Your task to perform on an android device: Search for "bose soundlink mini" on ebay.com, select the first entry, and add it to the cart. Image 0: 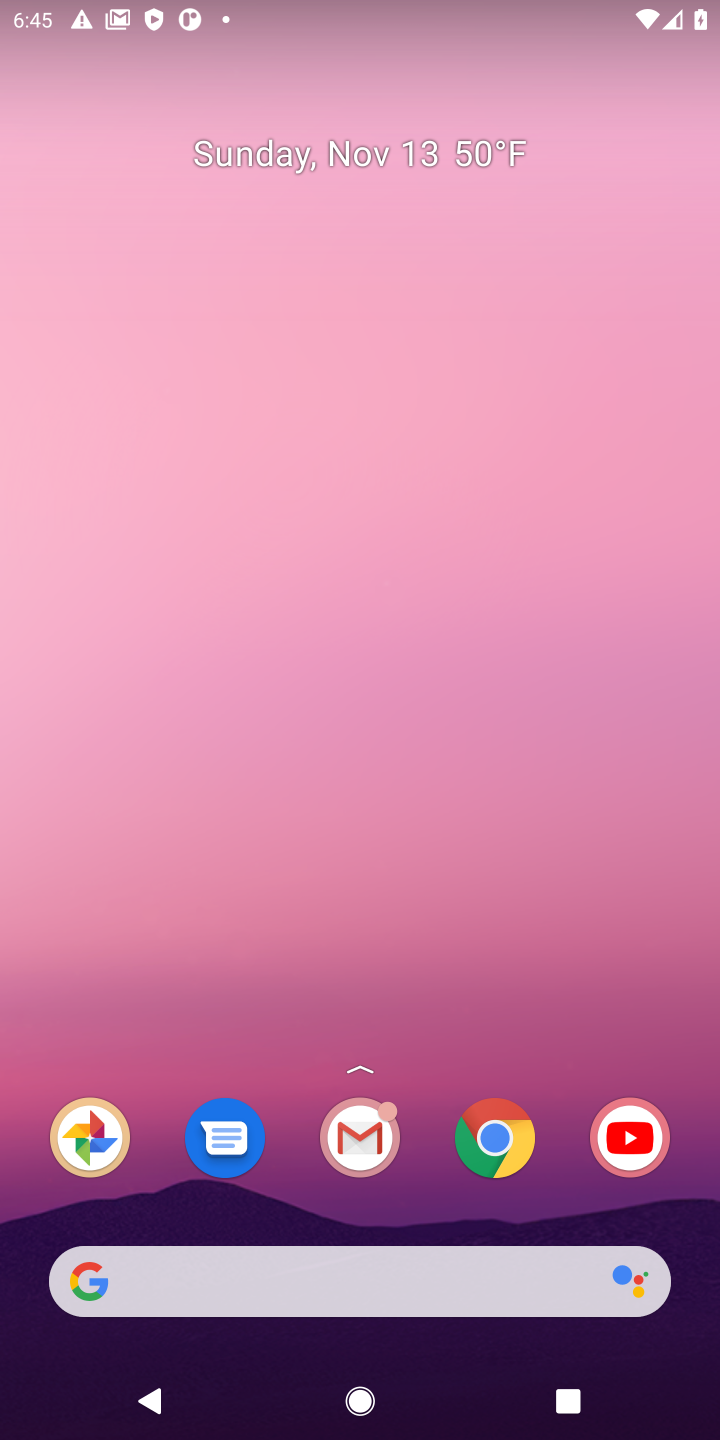
Step 0: drag from (210, 718) to (106, 145)
Your task to perform on an android device: Search for "bose soundlink mini" on ebay.com, select the first entry, and add it to the cart. Image 1: 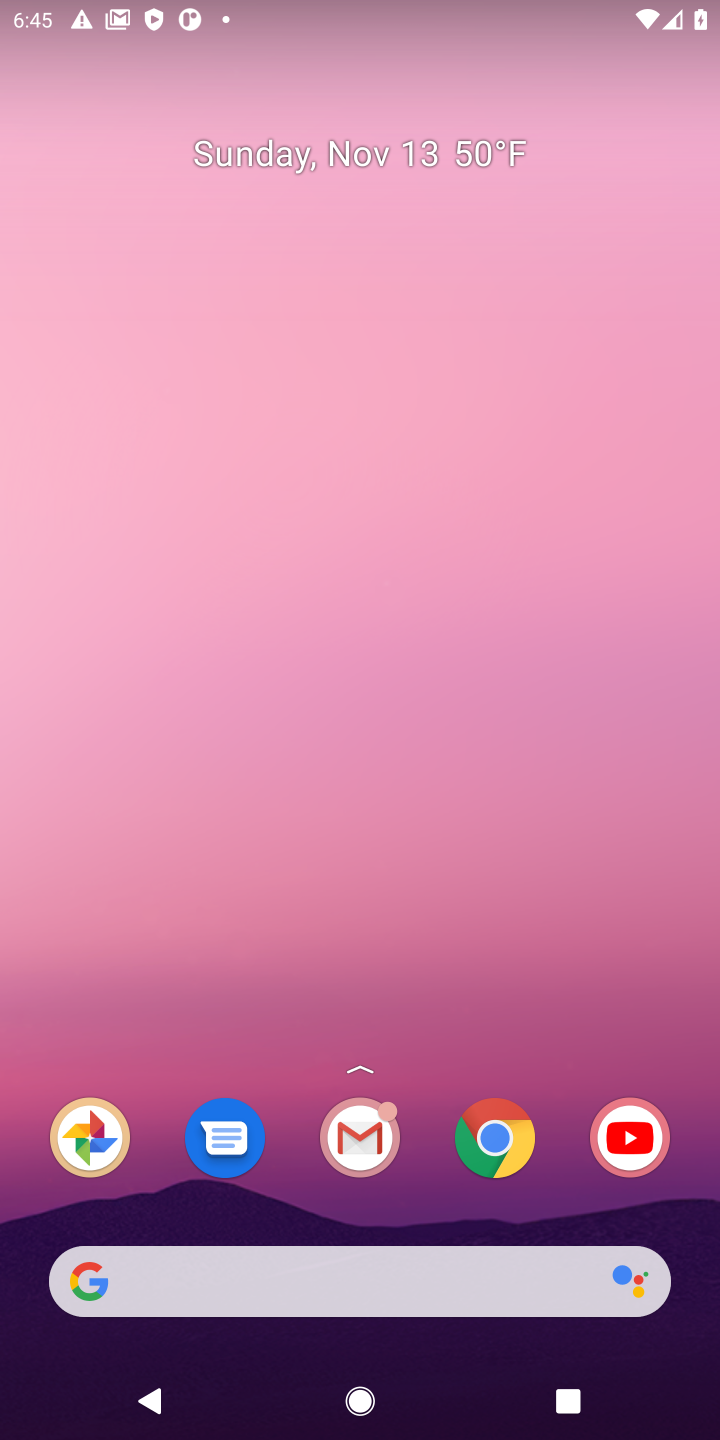
Step 1: drag from (321, 1081) to (147, 38)
Your task to perform on an android device: Search for "bose soundlink mini" on ebay.com, select the first entry, and add it to the cart. Image 2: 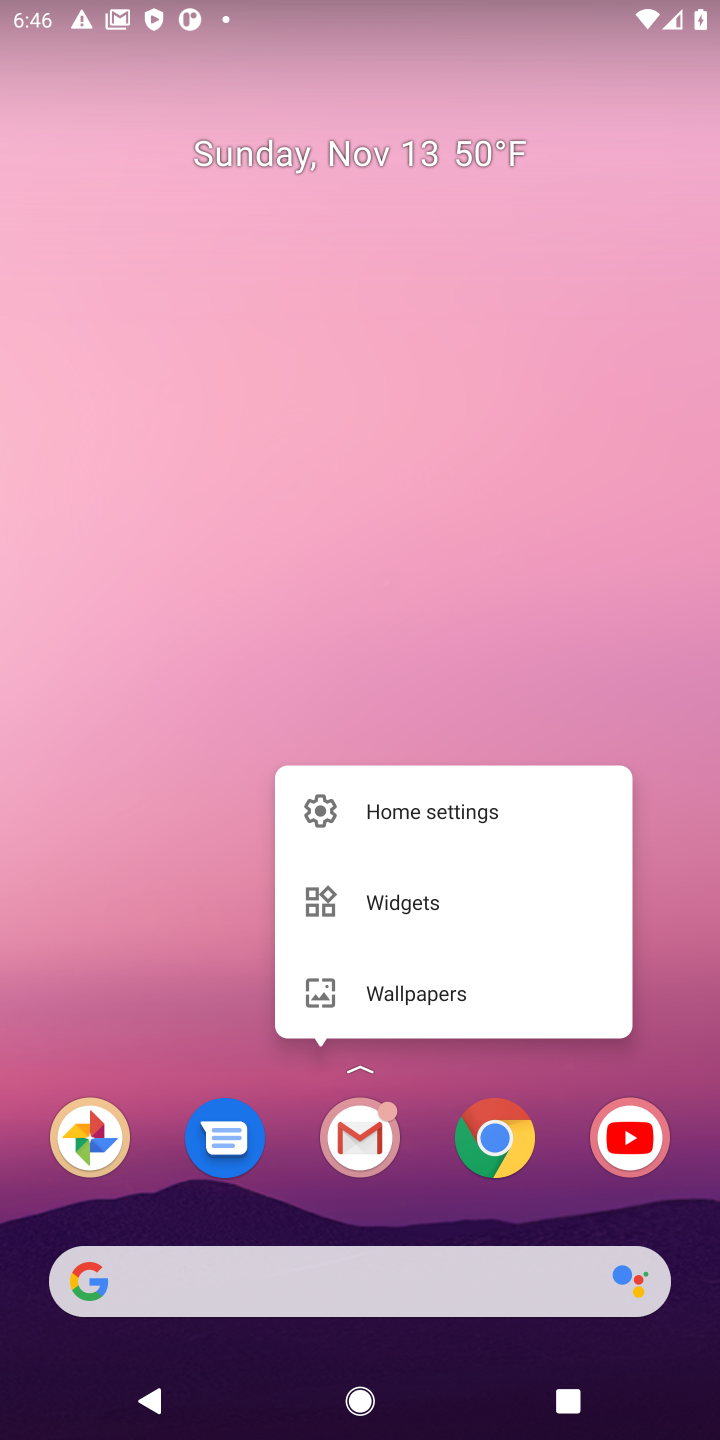
Step 2: click (277, 396)
Your task to perform on an android device: Search for "bose soundlink mini" on ebay.com, select the first entry, and add it to the cart. Image 3: 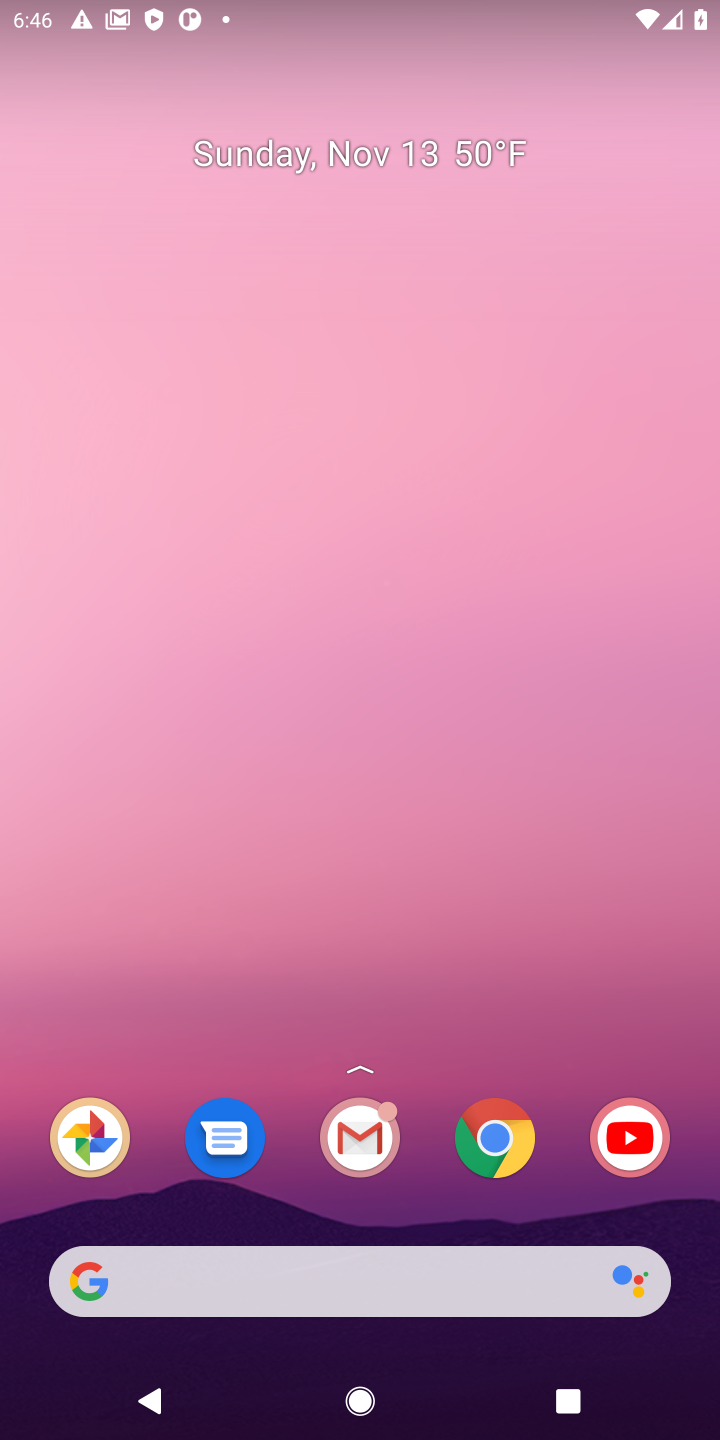
Step 3: drag from (333, 875) to (280, 253)
Your task to perform on an android device: Search for "bose soundlink mini" on ebay.com, select the first entry, and add it to the cart. Image 4: 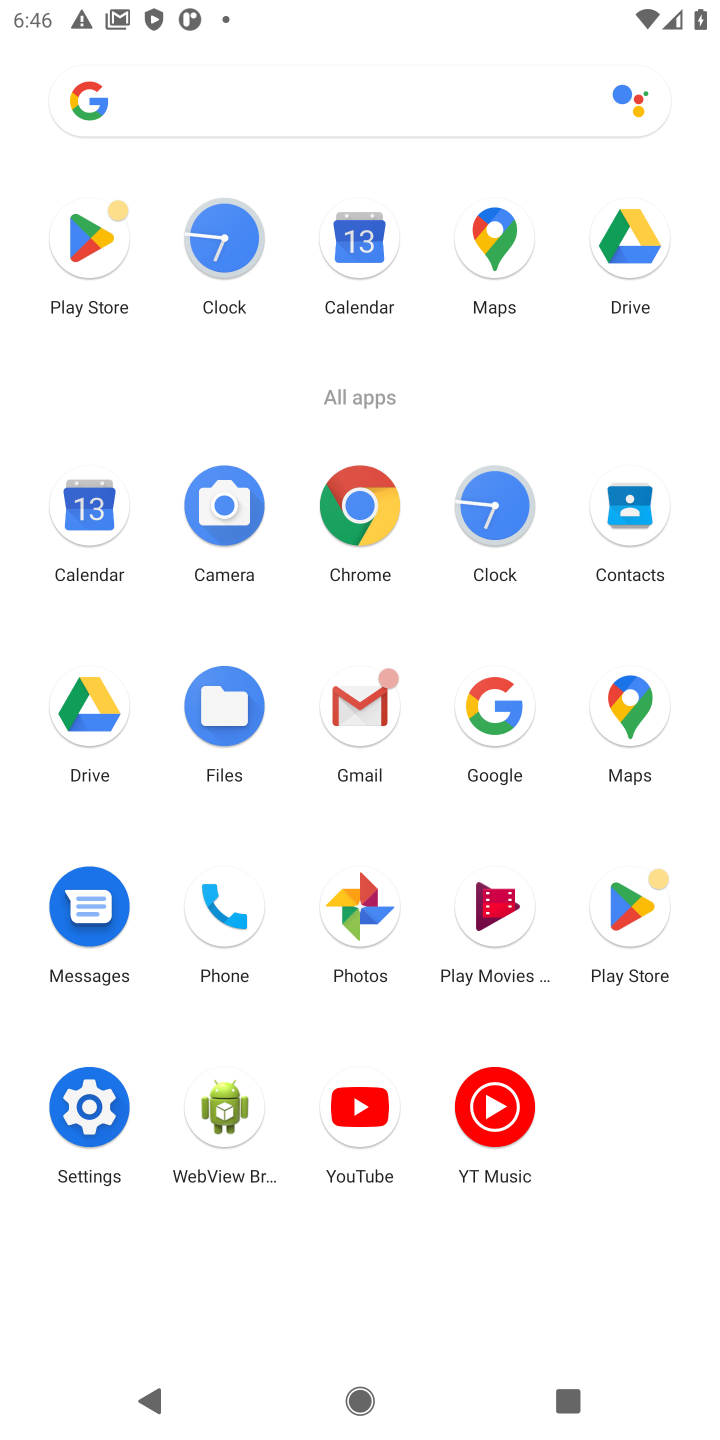
Step 4: click (354, 501)
Your task to perform on an android device: Search for "bose soundlink mini" on ebay.com, select the first entry, and add it to the cart. Image 5: 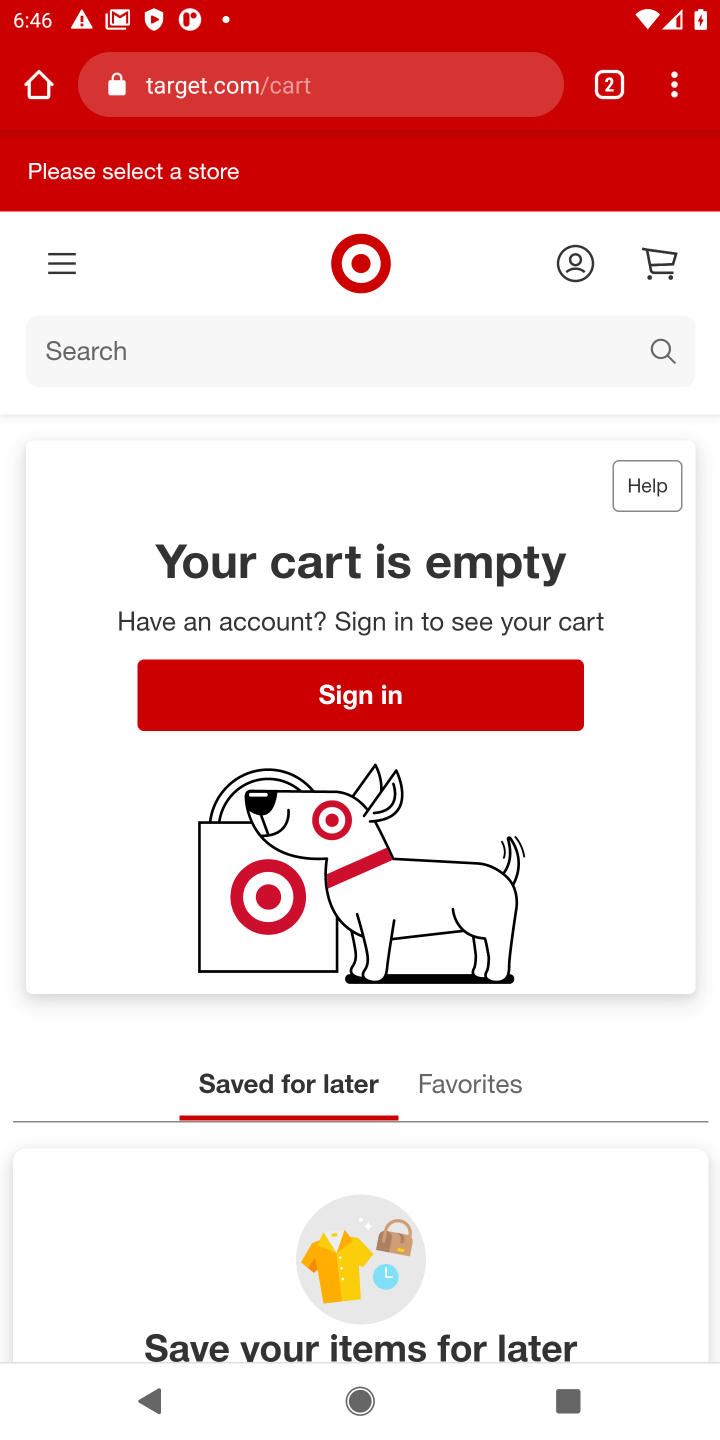
Step 5: click (327, 86)
Your task to perform on an android device: Search for "bose soundlink mini" on ebay.com, select the first entry, and add it to the cart. Image 6: 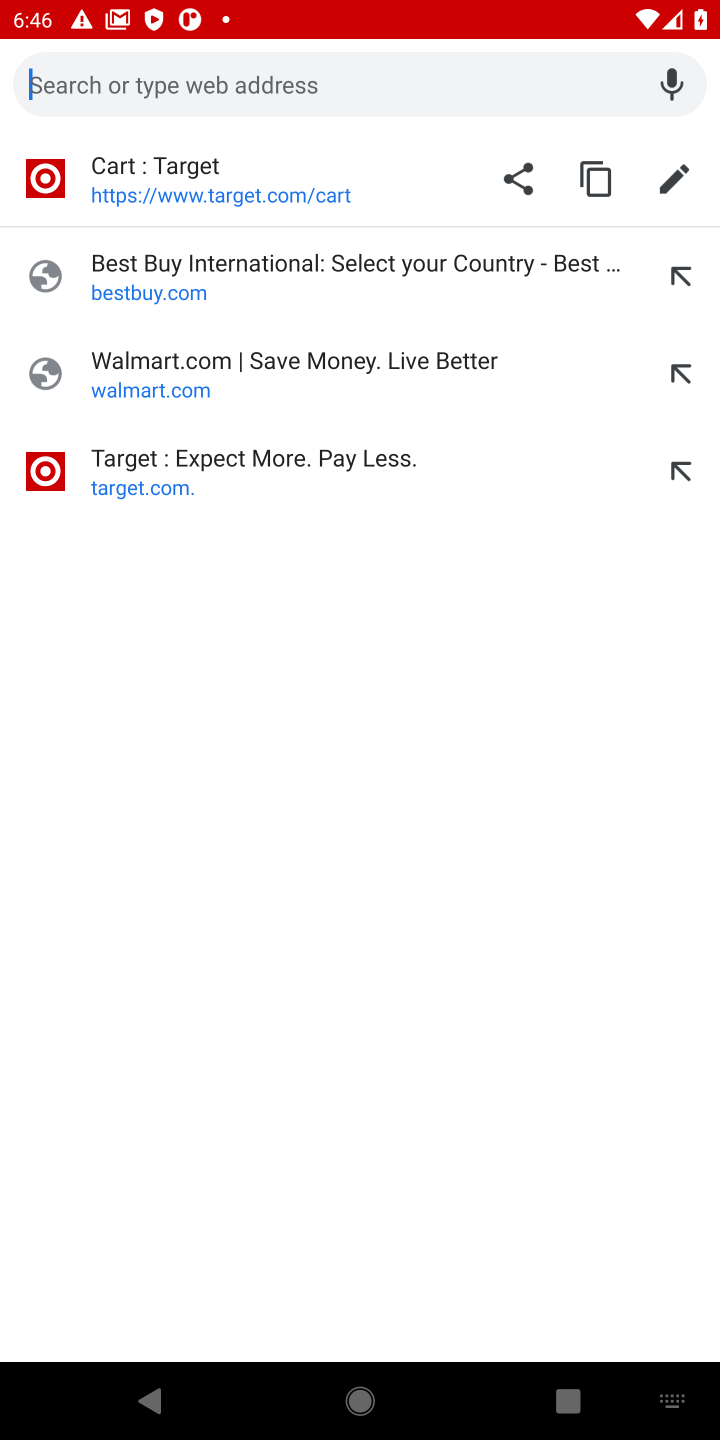
Step 6: type "ebay.com"
Your task to perform on an android device: Search for "bose soundlink mini" on ebay.com, select the first entry, and add it to the cart. Image 7: 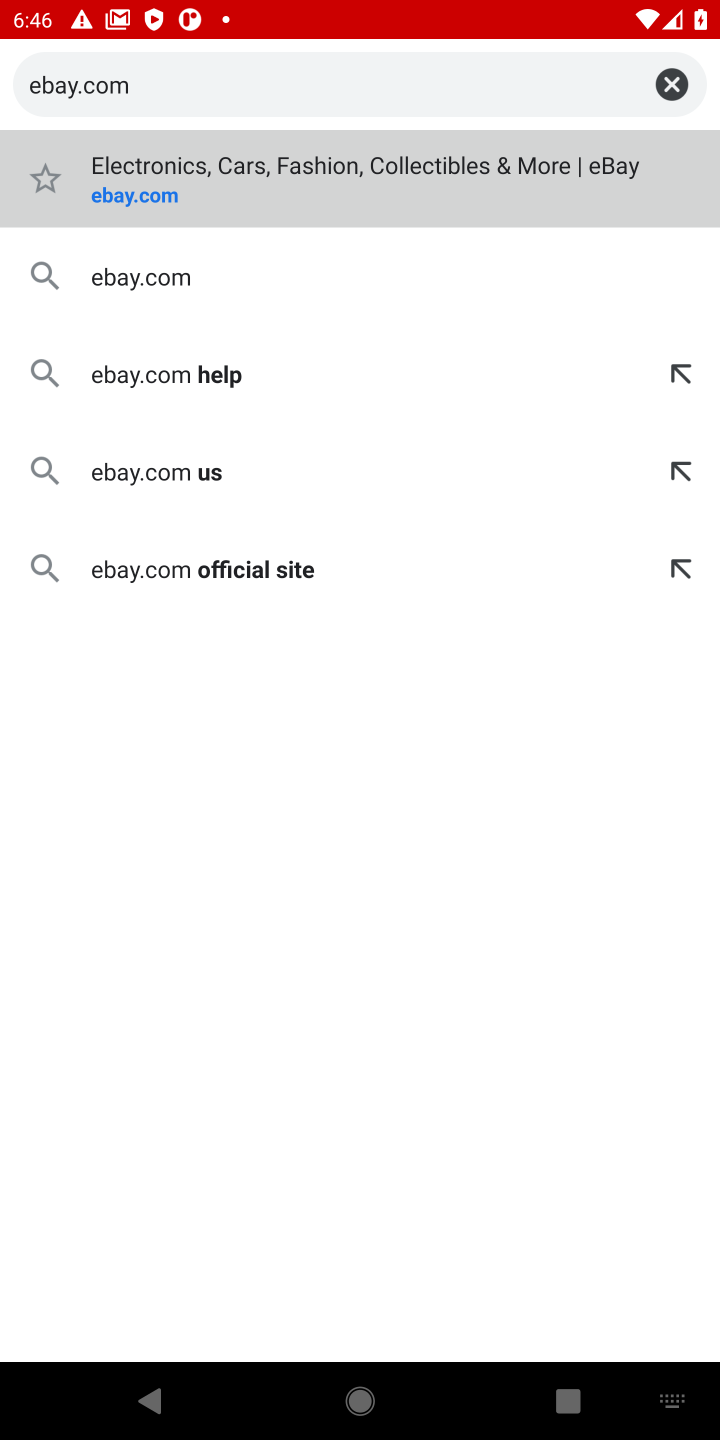
Step 7: press enter
Your task to perform on an android device: Search for "bose soundlink mini" on ebay.com, select the first entry, and add it to the cart. Image 8: 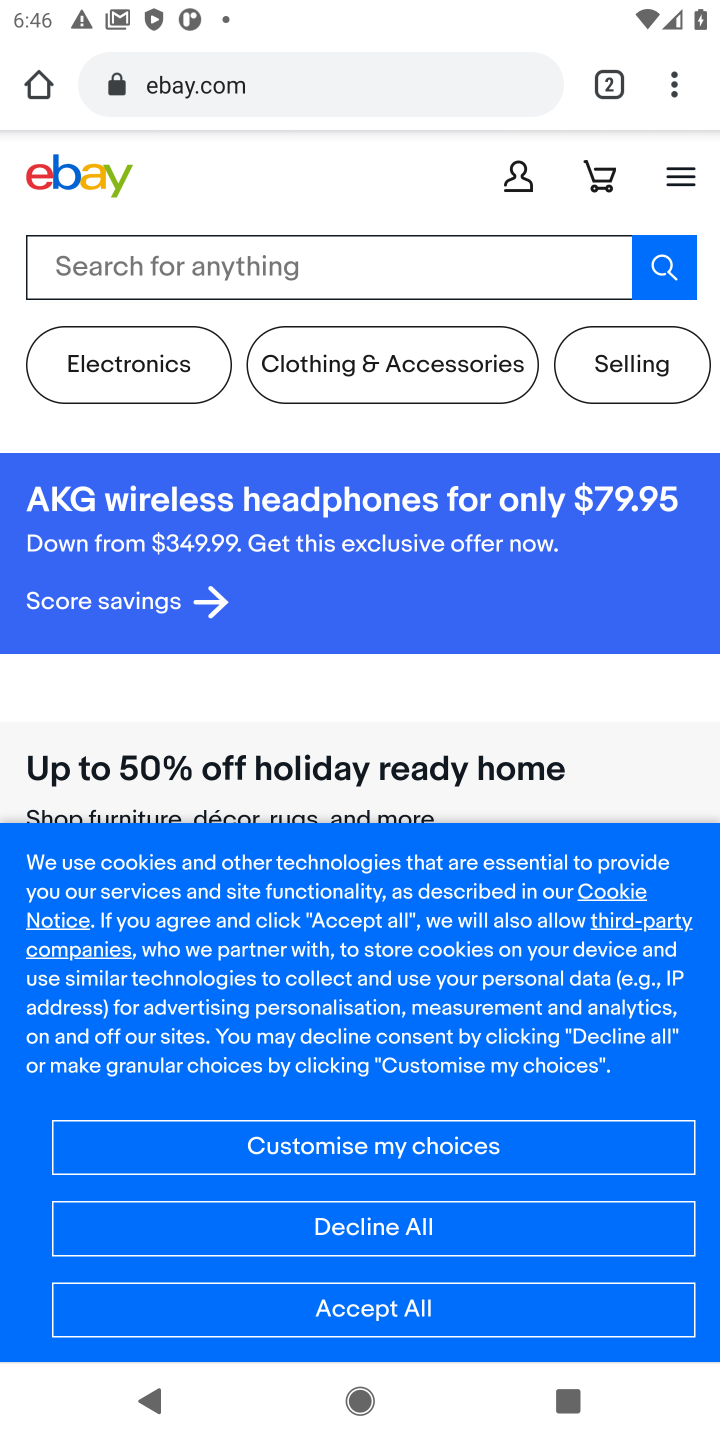
Step 8: click (121, 269)
Your task to perform on an android device: Search for "bose soundlink mini" on ebay.com, select the first entry, and add it to the cart. Image 9: 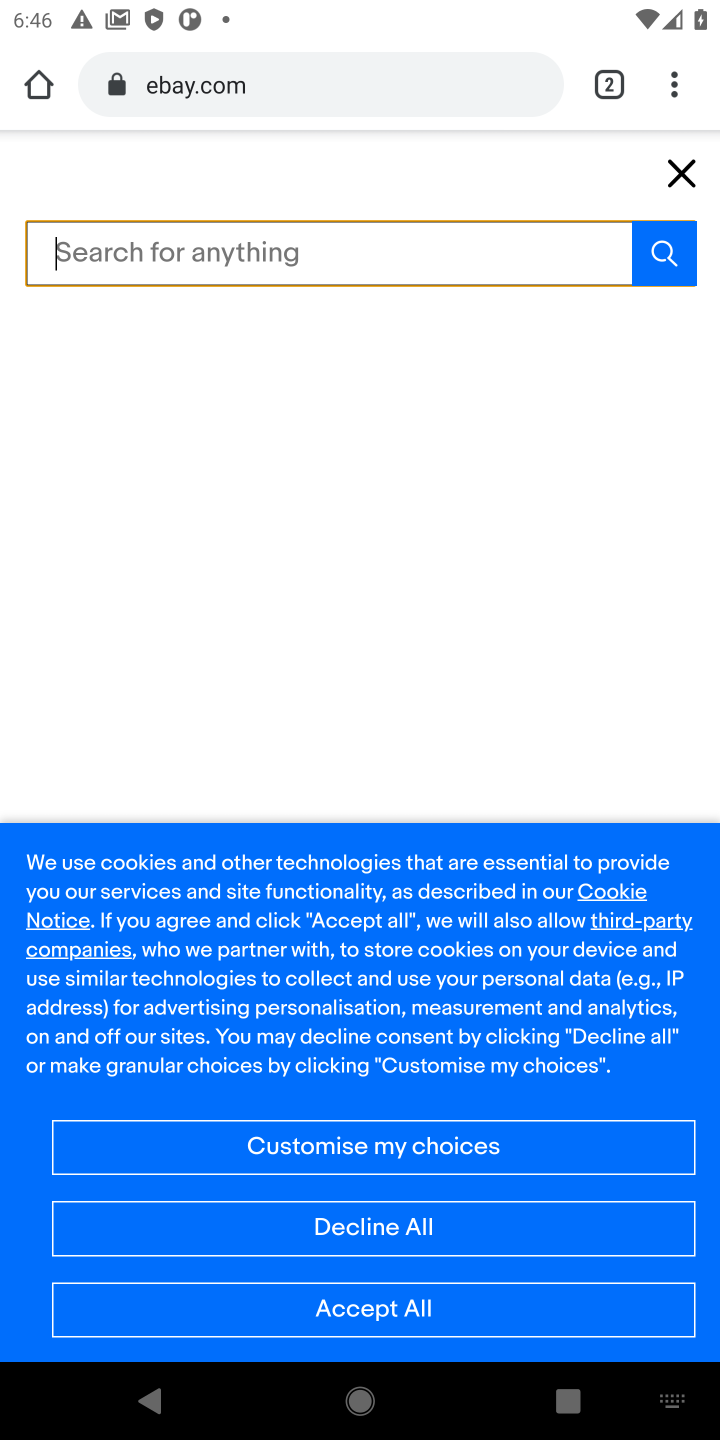
Step 9: type "bose soundlink mini"
Your task to perform on an android device: Search for "bose soundlink mini" on ebay.com, select the first entry, and add it to the cart. Image 10: 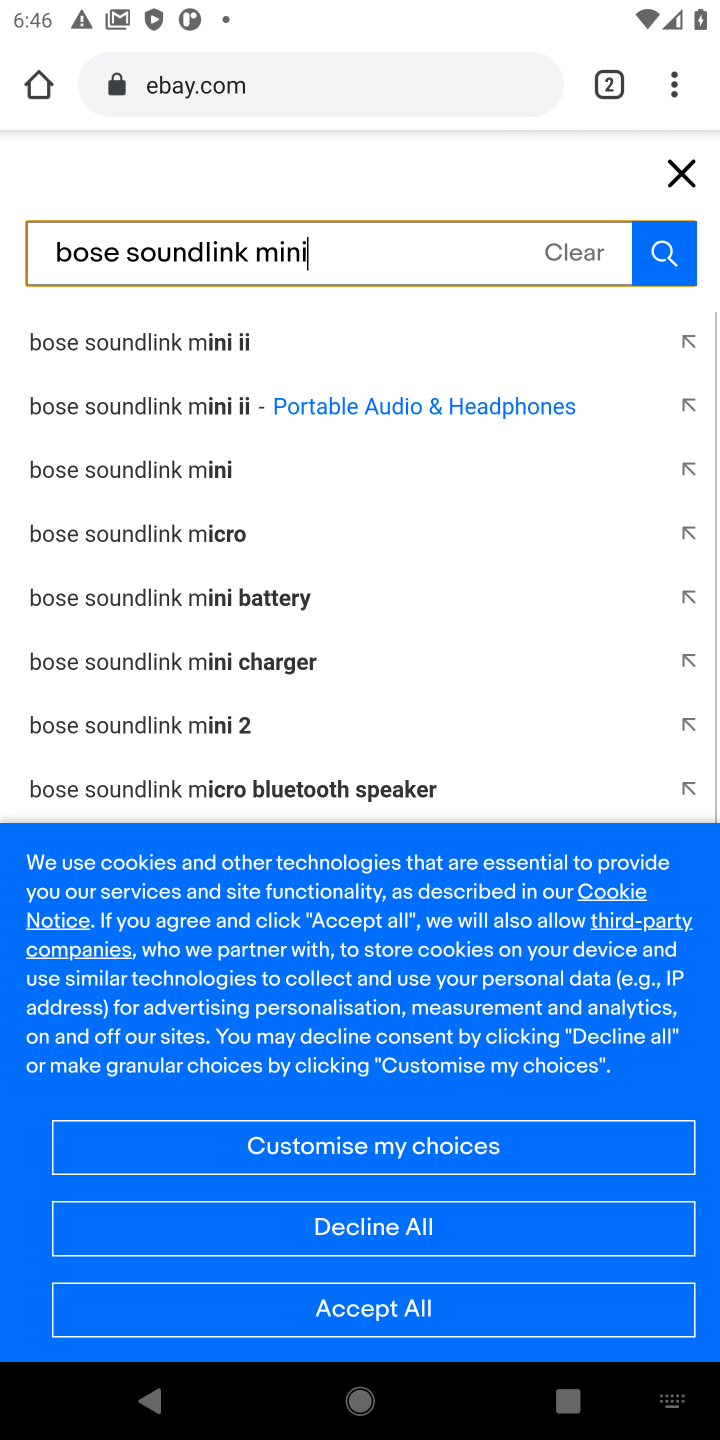
Step 10: press enter
Your task to perform on an android device: Search for "bose soundlink mini" on ebay.com, select the first entry, and add it to the cart. Image 11: 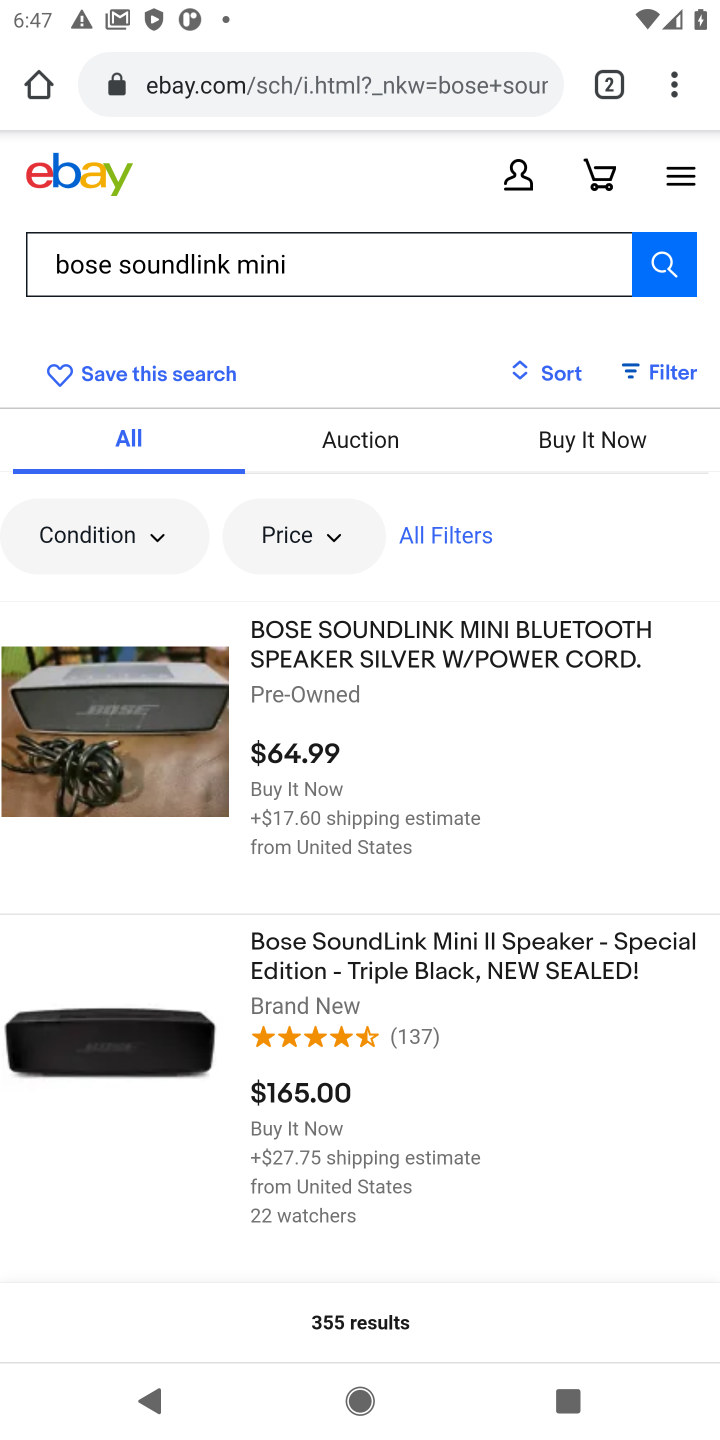
Step 11: click (447, 610)
Your task to perform on an android device: Search for "bose soundlink mini" on ebay.com, select the first entry, and add it to the cart. Image 12: 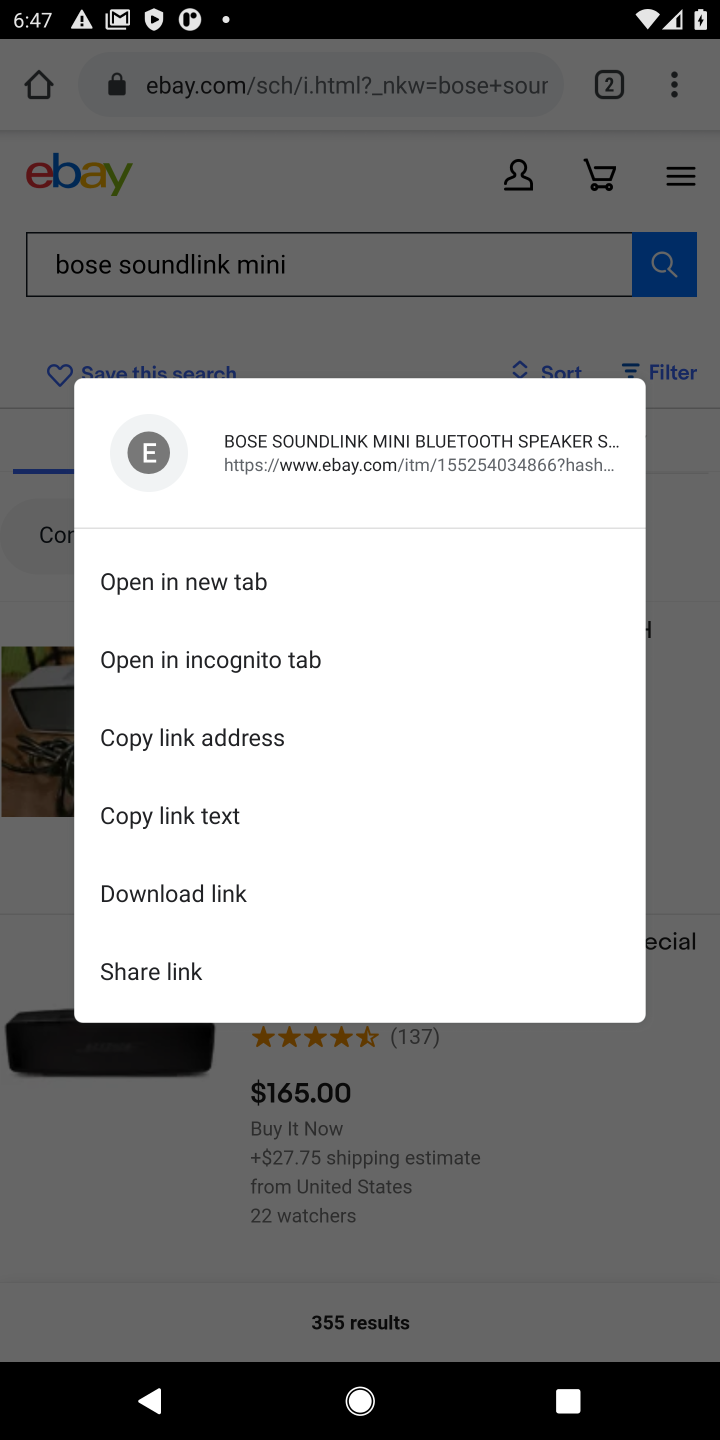
Step 12: click (229, 588)
Your task to perform on an android device: Search for "bose soundlink mini" on ebay.com, select the first entry, and add it to the cart. Image 13: 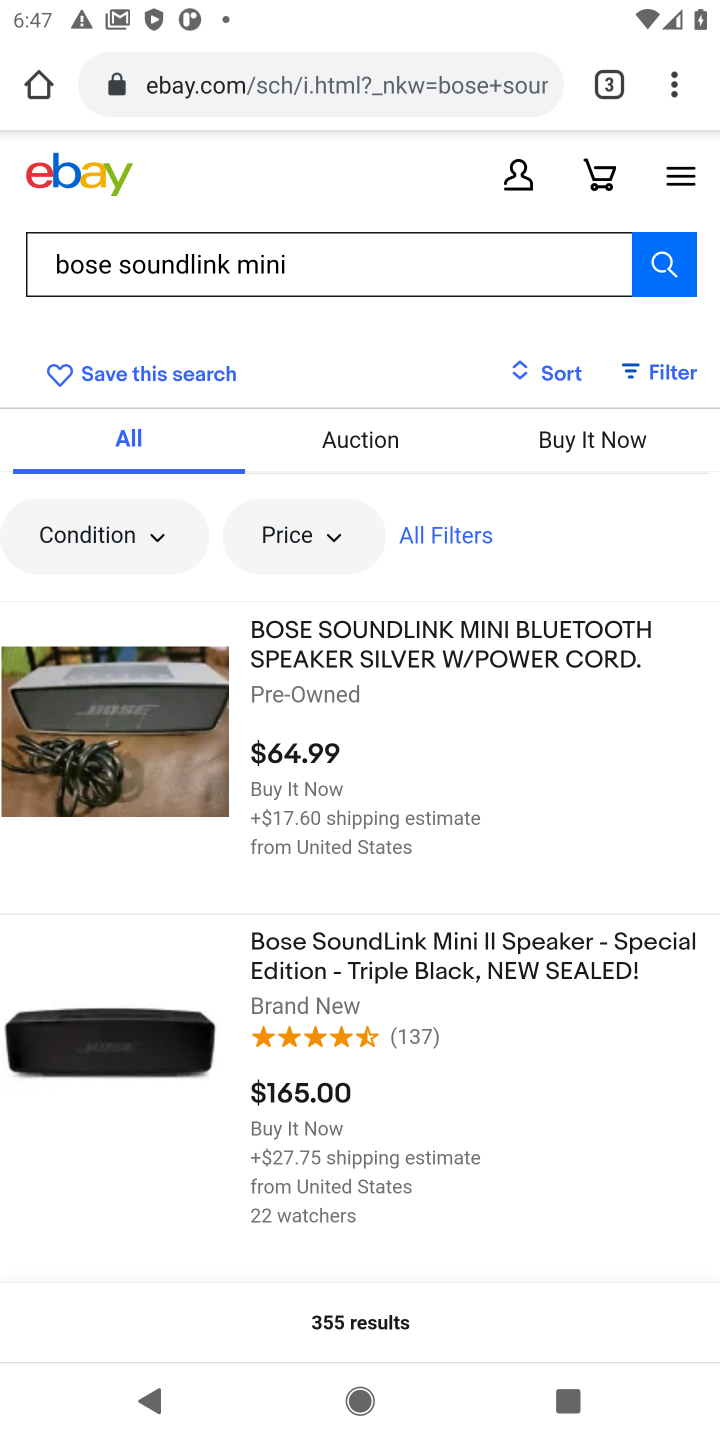
Step 13: click (321, 637)
Your task to perform on an android device: Search for "bose soundlink mini" on ebay.com, select the first entry, and add it to the cart. Image 14: 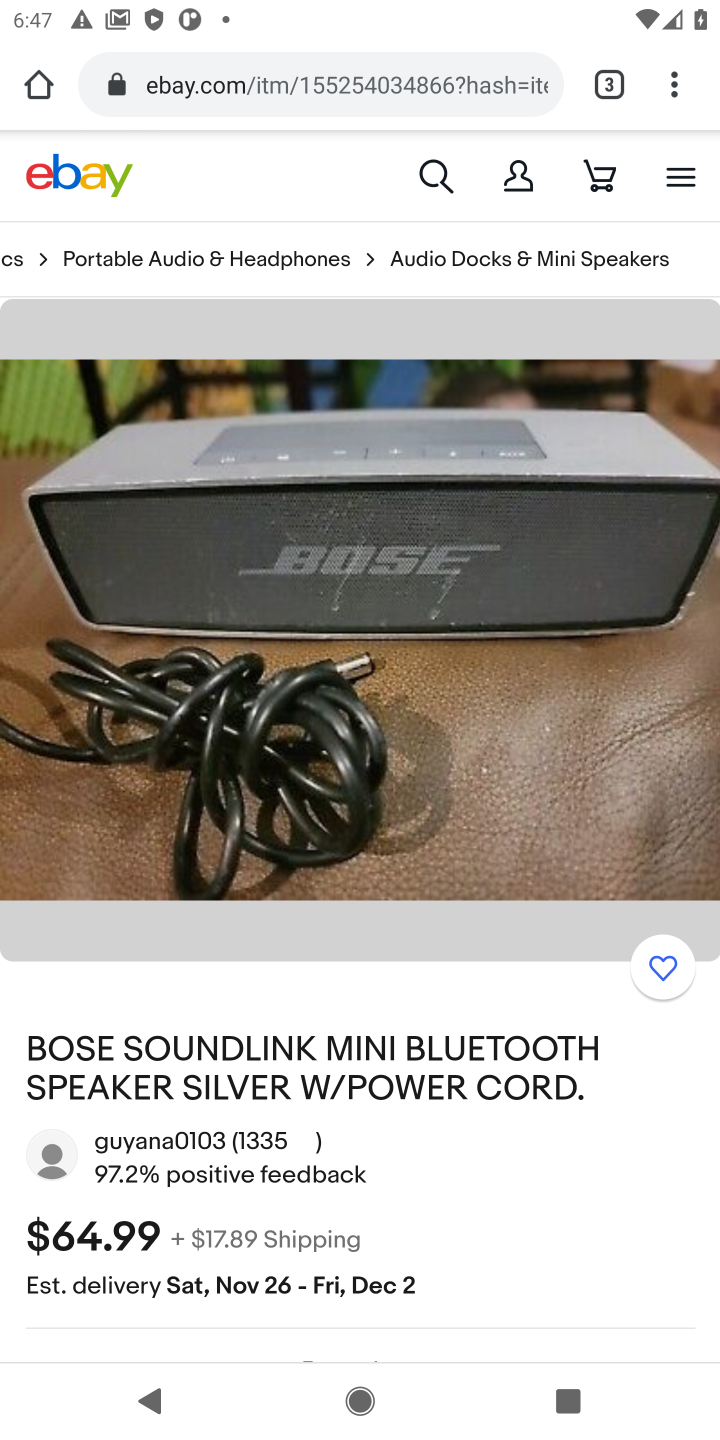
Step 14: drag from (299, 1074) to (199, 782)
Your task to perform on an android device: Search for "bose soundlink mini" on ebay.com, select the first entry, and add it to the cart. Image 15: 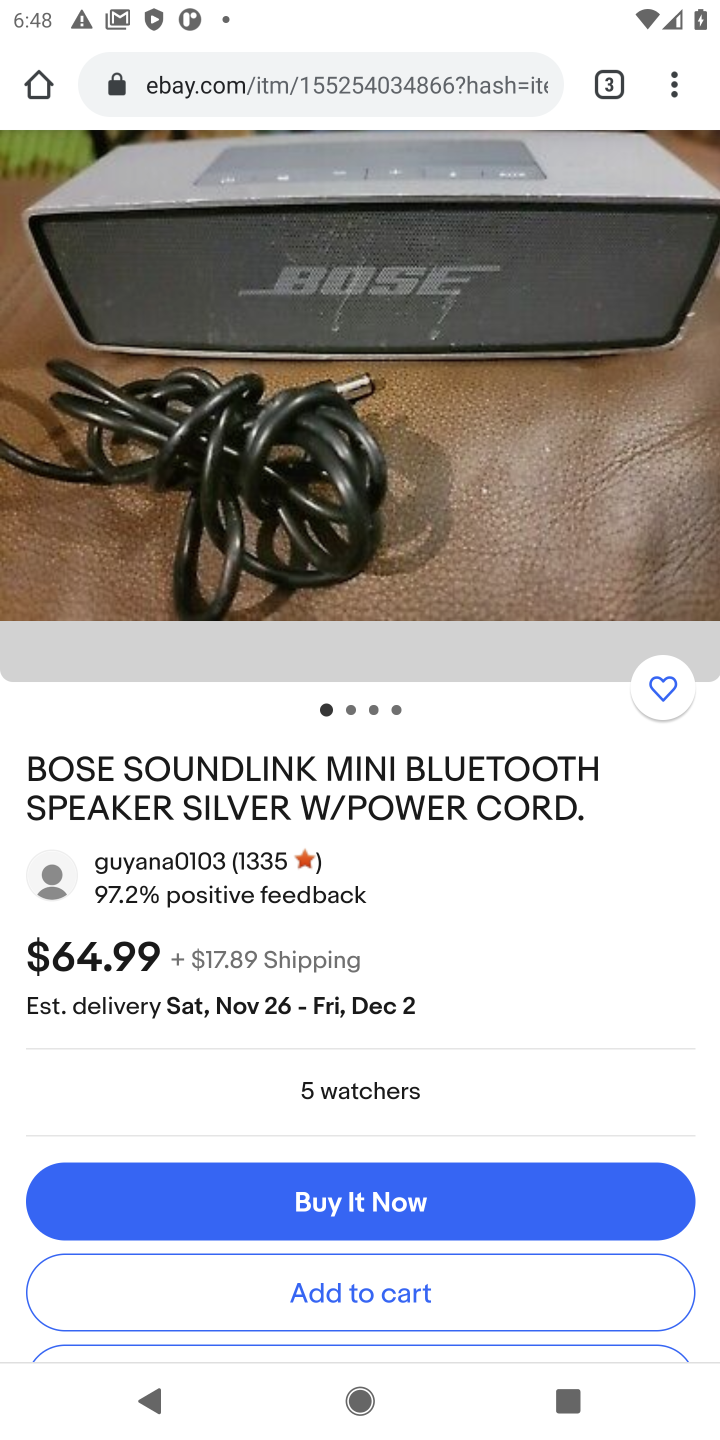
Step 15: drag from (454, 959) to (479, 682)
Your task to perform on an android device: Search for "bose soundlink mini" on ebay.com, select the first entry, and add it to the cart. Image 16: 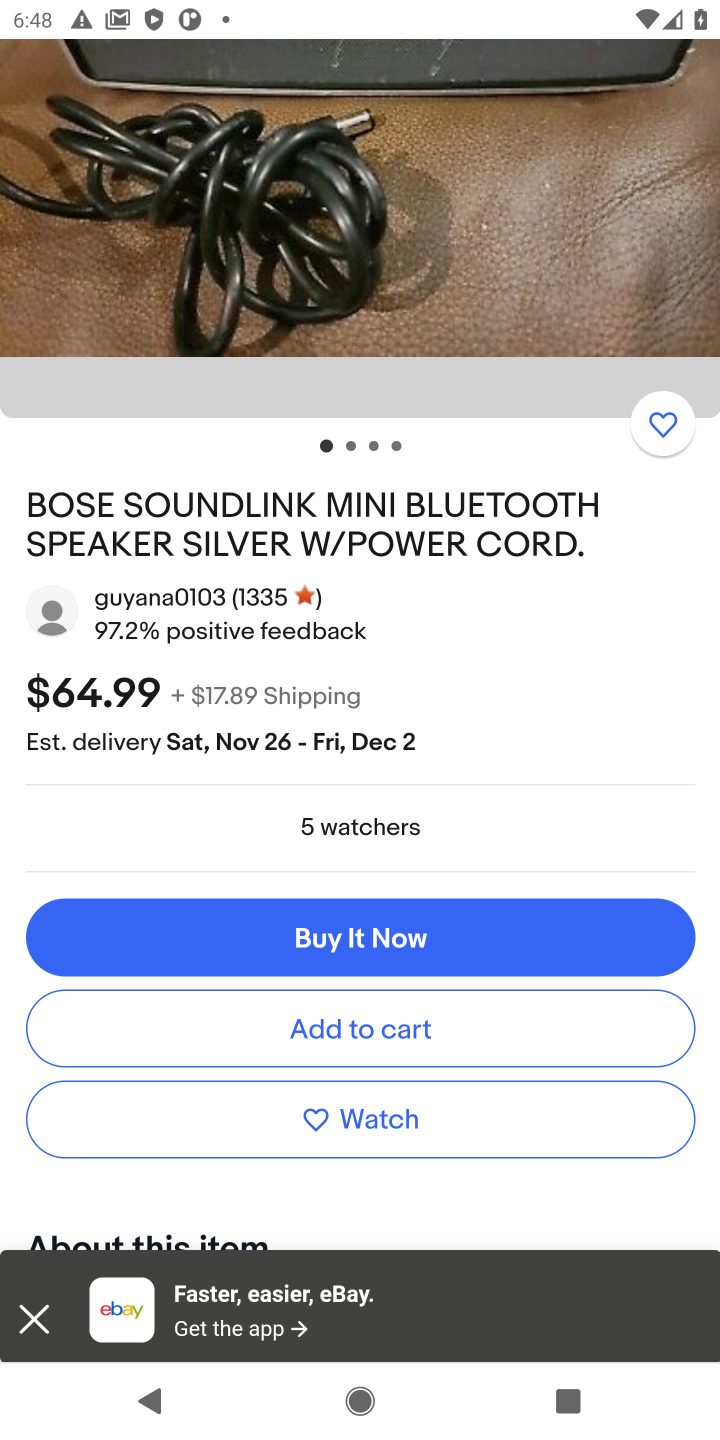
Step 16: click (449, 1021)
Your task to perform on an android device: Search for "bose soundlink mini" on ebay.com, select the first entry, and add it to the cart. Image 17: 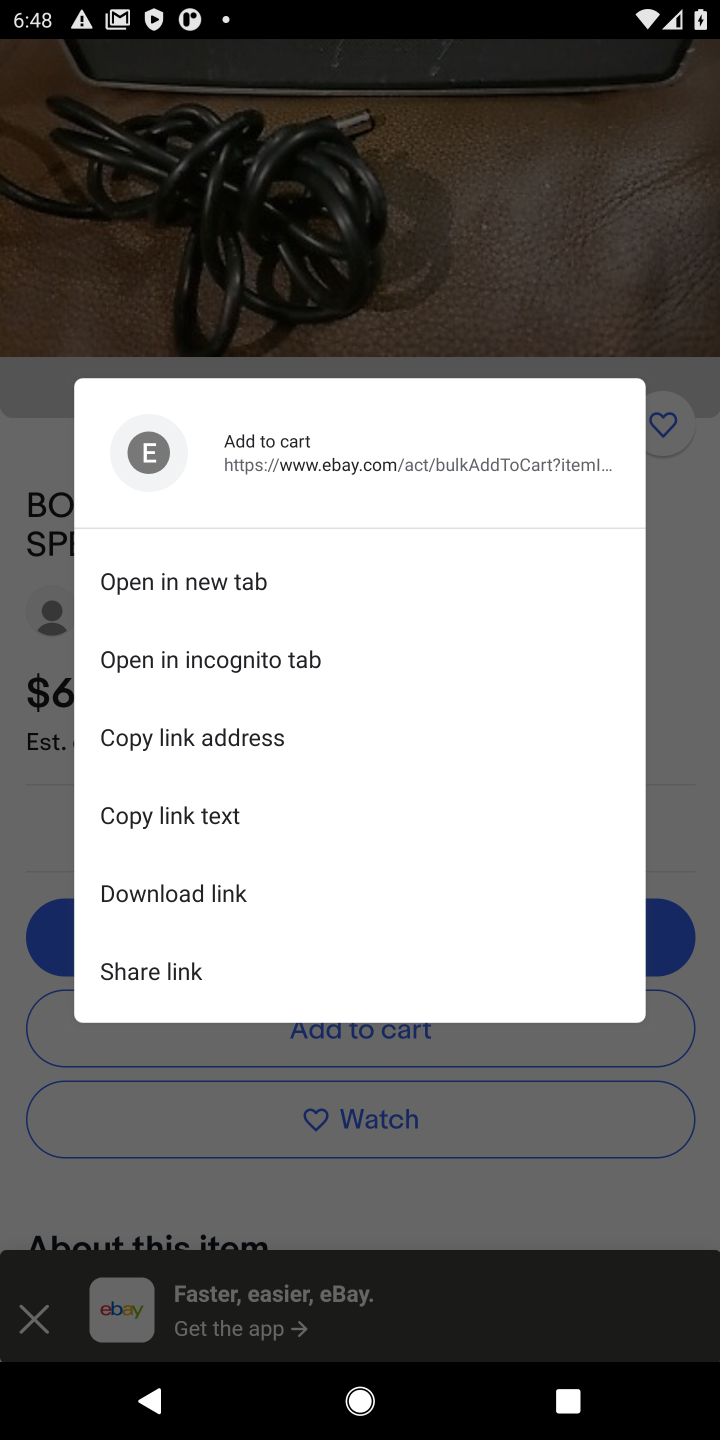
Step 17: click (243, 590)
Your task to perform on an android device: Search for "bose soundlink mini" on ebay.com, select the first entry, and add it to the cart. Image 18: 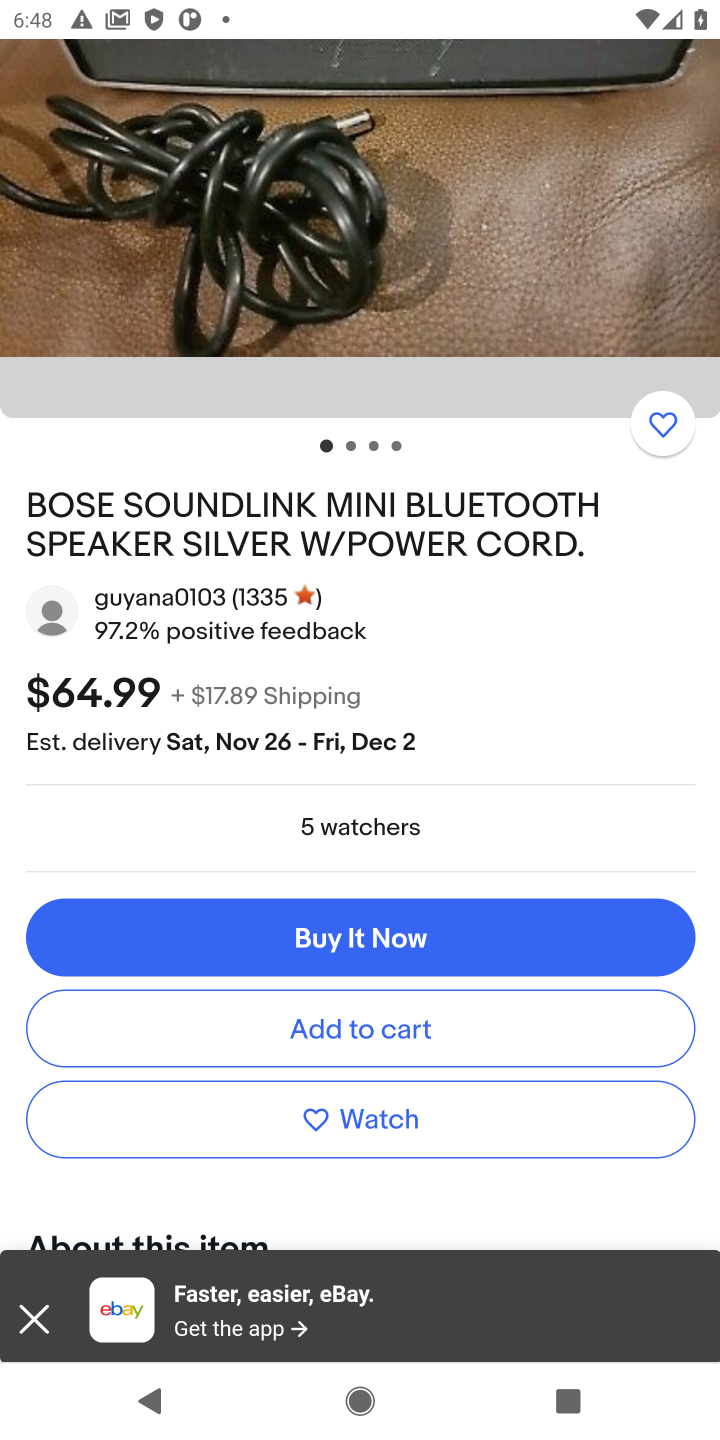
Step 18: click (371, 1034)
Your task to perform on an android device: Search for "bose soundlink mini" on ebay.com, select the first entry, and add it to the cart. Image 19: 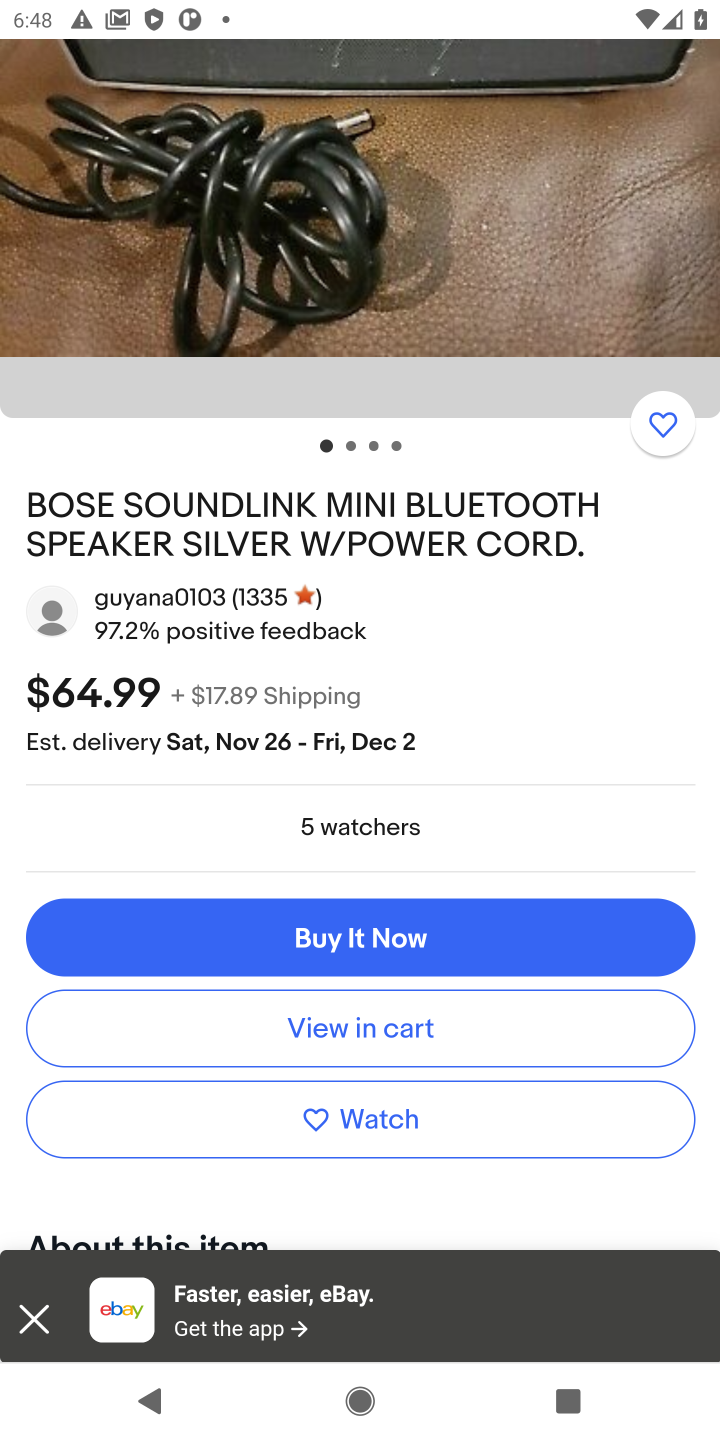
Step 19: click (371, 1034)
Your task to perform on an android device: Search for "bose soundlink mini" on ebay.com, select the first entry, and add it to the cart. Image 20: 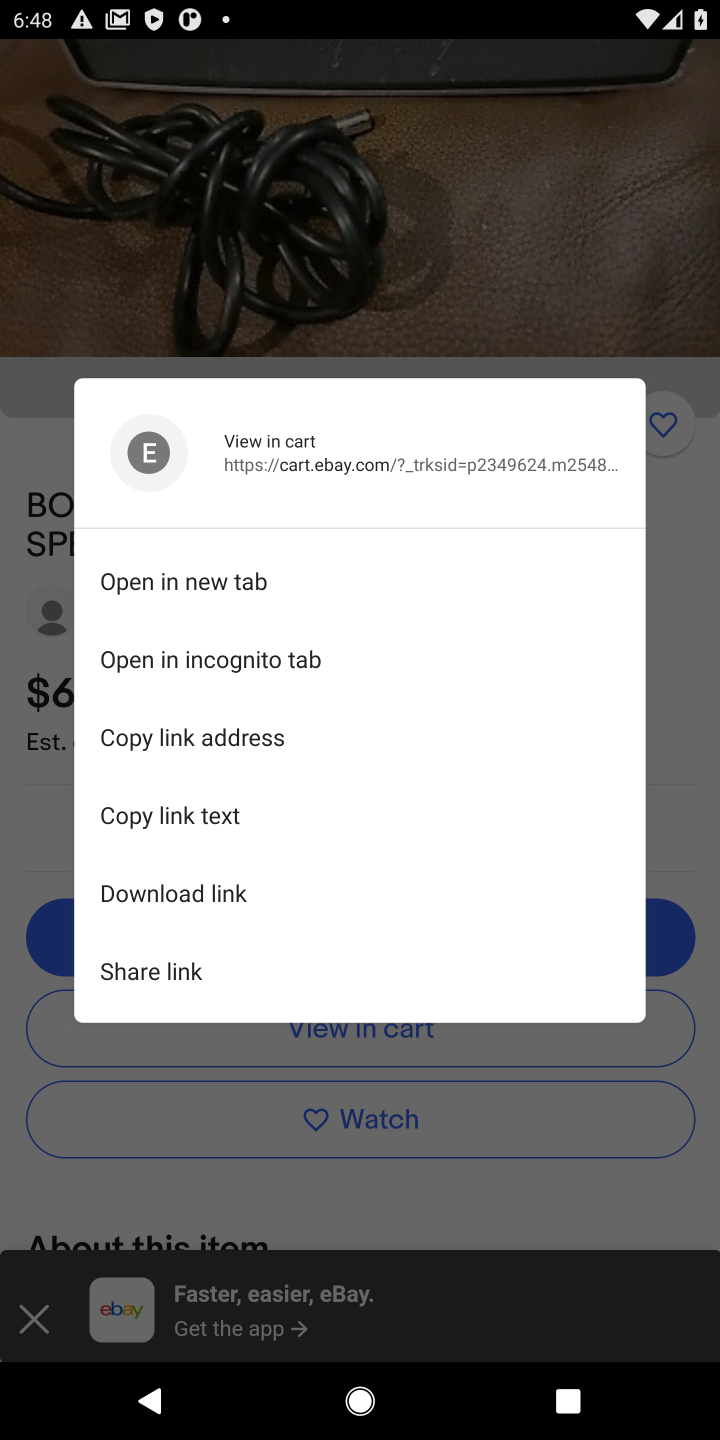
Step 20: task complete